Your task to perform on an android device: Open Maps and search for coffee Image 0: 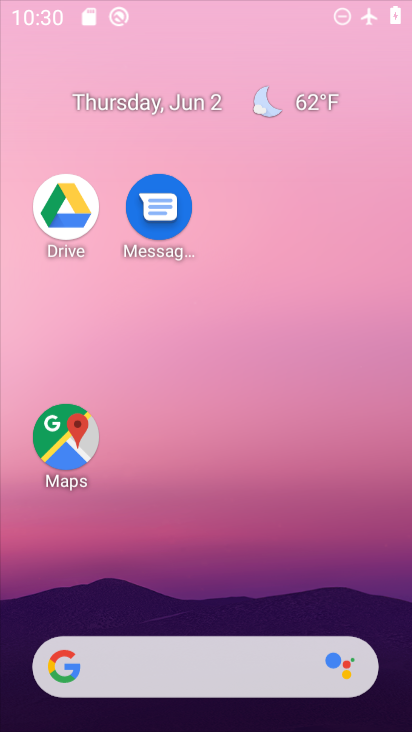
Step 0: click (193, 525)
Your task to perform on an android device: Open Maps and search for coffee Image 1: 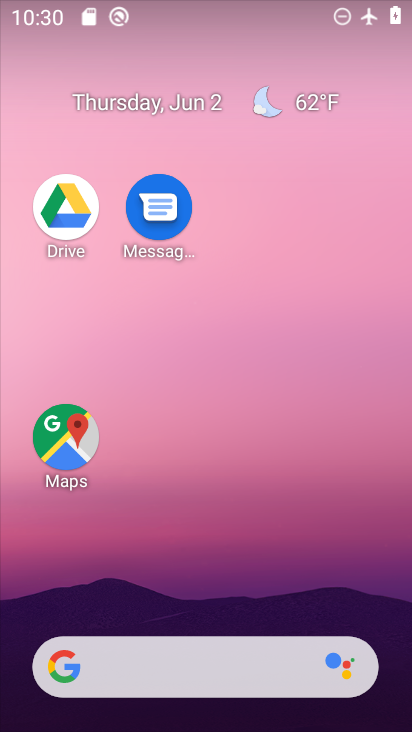
Step 1: drag from (181, 621) to (291, 14)
Your task to perform on an android device: Open Maps and search for coffee Image 2: 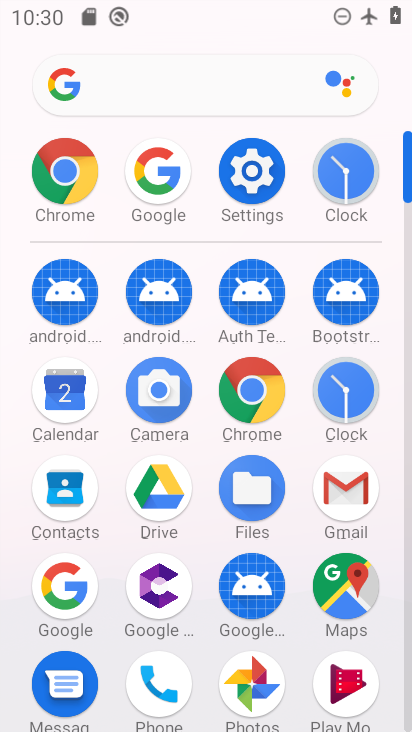
Step 2: click (357, 587)
Your task to perform on an android device: Open Maps and search for coffee Image 3: 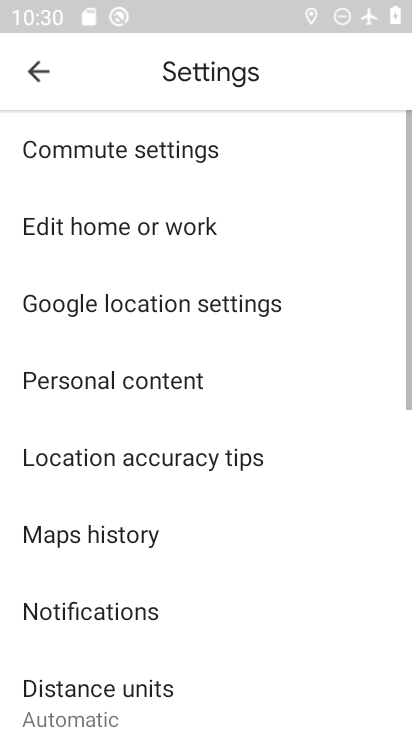
Step 3: click (28, 74)
Your task to perform on an android device: Open Maps and search for coffee Image 4: 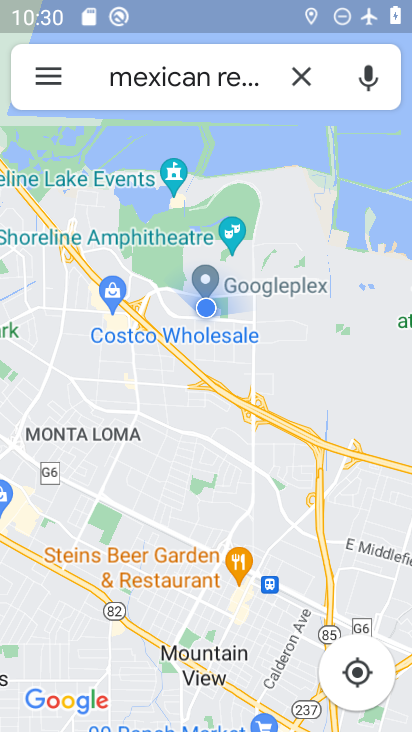
Step 4: click (296, 69)
Your task to perform on an android device: Open Maps and search for coffee Image 5: 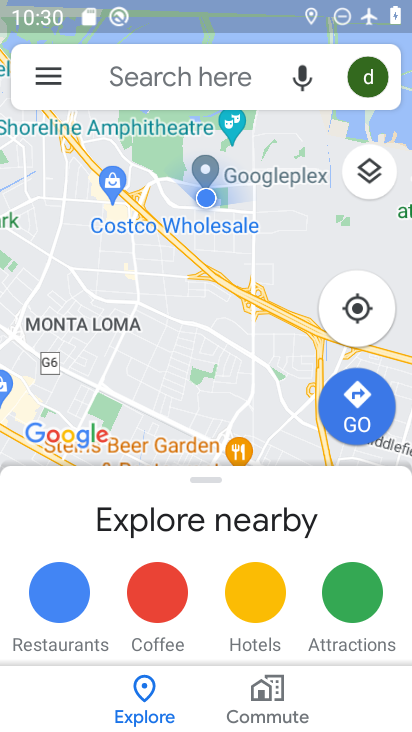
Step 5: click (177, 81)
Your task to perform on an android device: Open Maps and search for coffee Image 6: 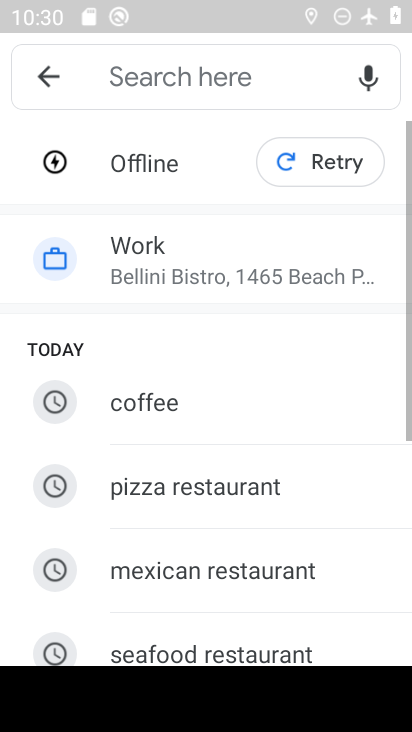
Step 6: click (167, 398)
Your task to perform on an android device: Open Maps and search for coffee Image 7: 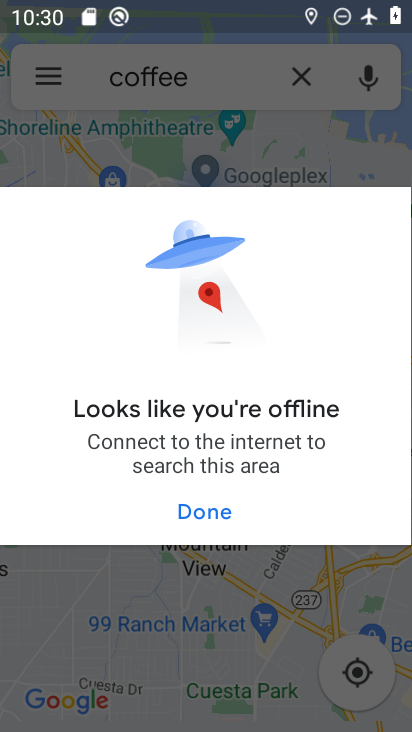
Step 7: task complete